Your task to perform on an android device: When is my next meeting? Image 0: 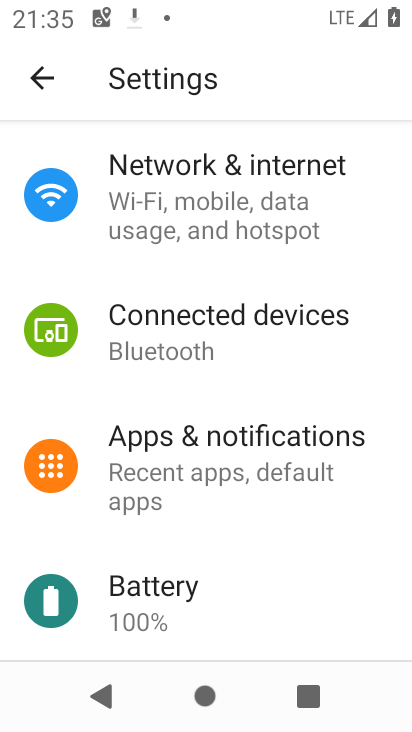
Step 0: press back button
Your task to perform on an android device: When is my next meeting? Image 1: 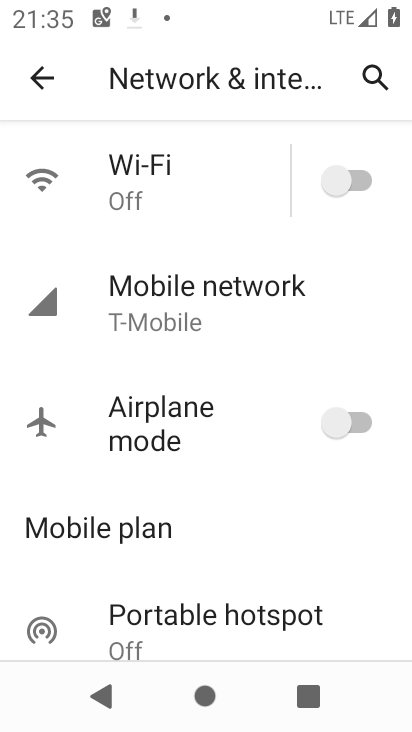
Step 1: press back button
Your task to perform on an android device: When is my next meeting? Image 2: 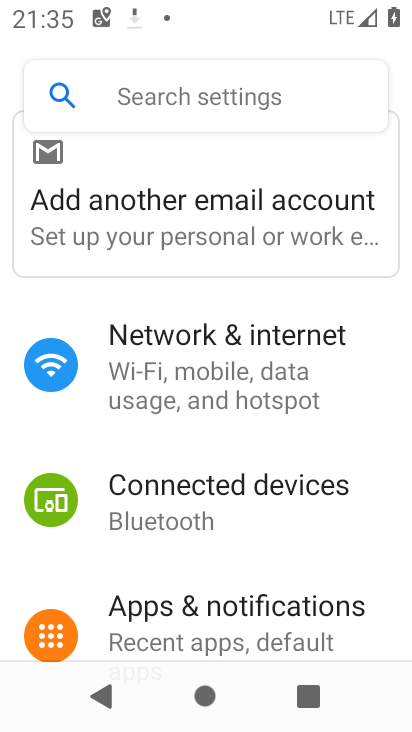
Step 2: press back button
Your task to perform on an android device: When is my next meeting? Image 3: 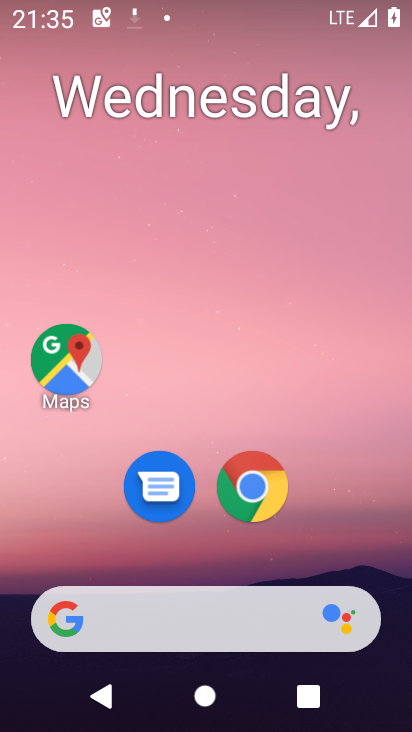
Step 3: drag from (195, 547) to (293, 12)
Your task to perform on an android device: When is my next meeting? Image 4: 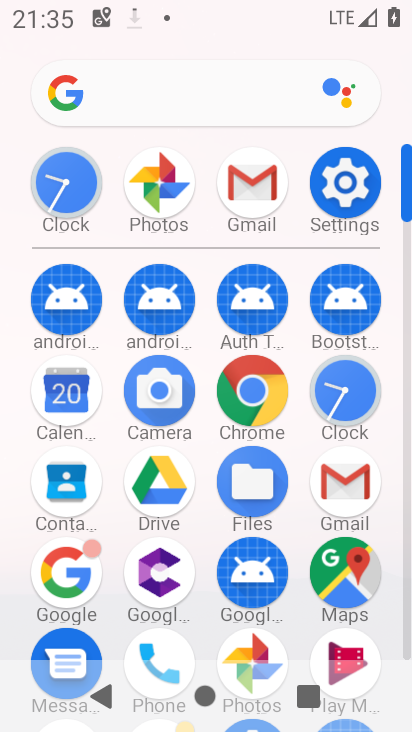
Step 4: click (54, 396)
Your task to perform on an android device: When is my next meeting? Image 5: 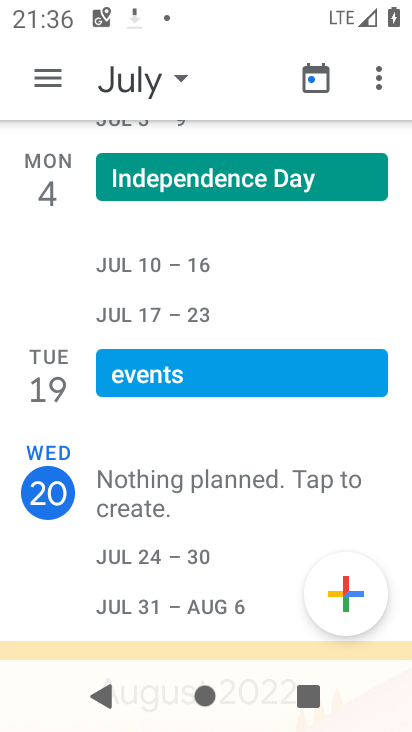
Step 5: task complete